Your task to perform on an android device: Go to eBay Image 0: 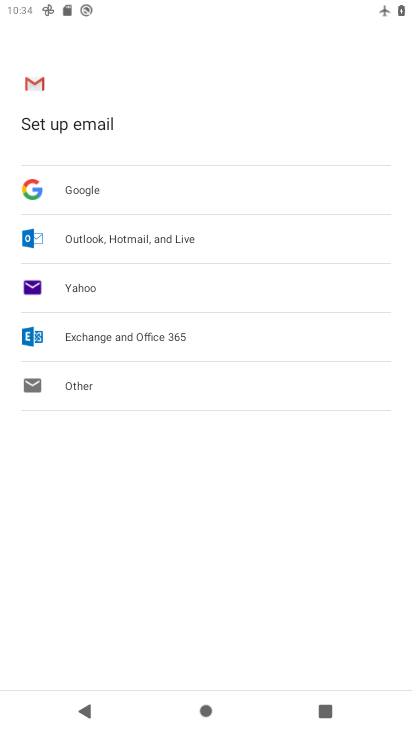
Step 0: drag from (281, 631) to (150, 17)
Your task to perform on an android device: Go to eBay Image 1: 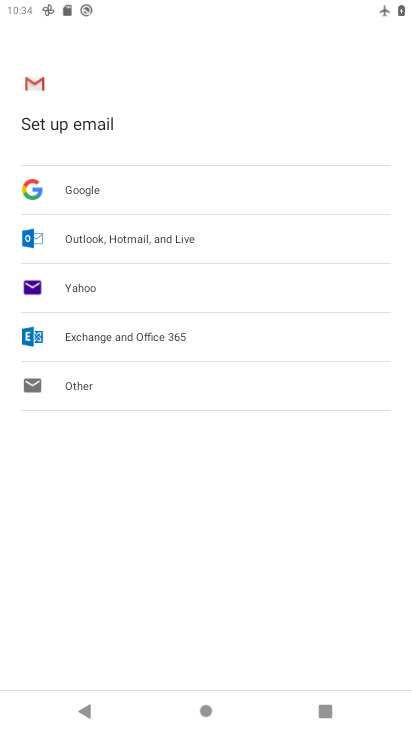
Step 1: press back button
Your task to perform on an android device: Go to eBay Image 2: 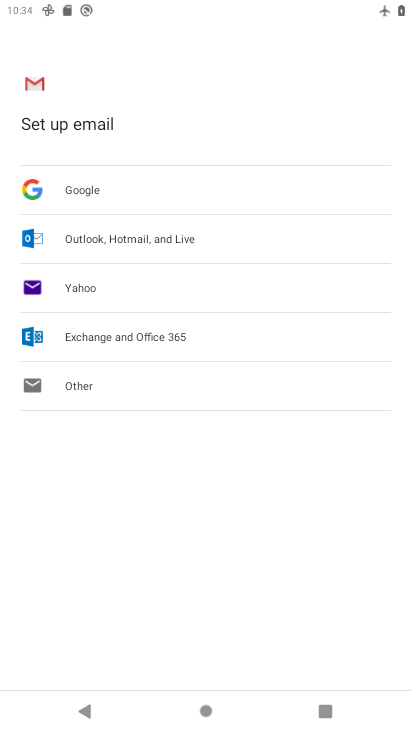
Step 2: press back button
Your task to perform on an android device: Go to eBay Image 3: 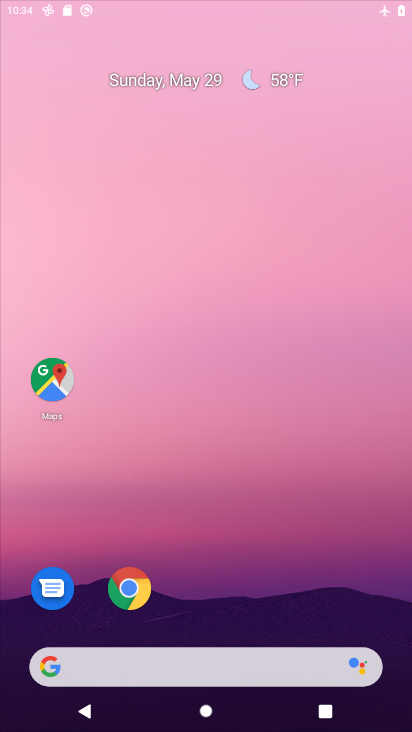
Step 3: press back button
Your task to perform on an android device: Go to eBay Image 4: 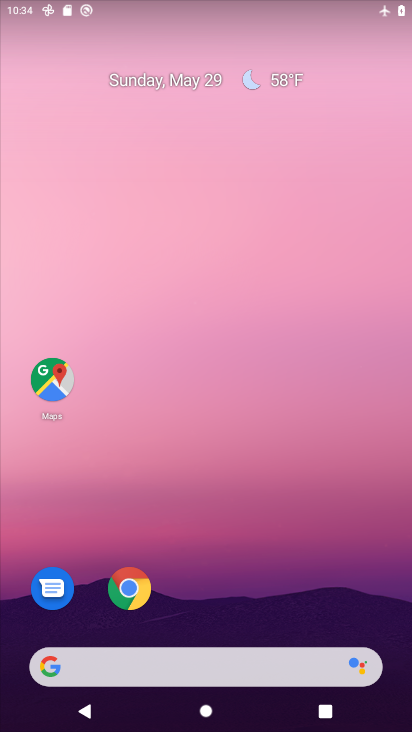
Step 4: drag from (131, 326) to (64, 53)
Your task to perform on an android device: Go to eBay Image 5: 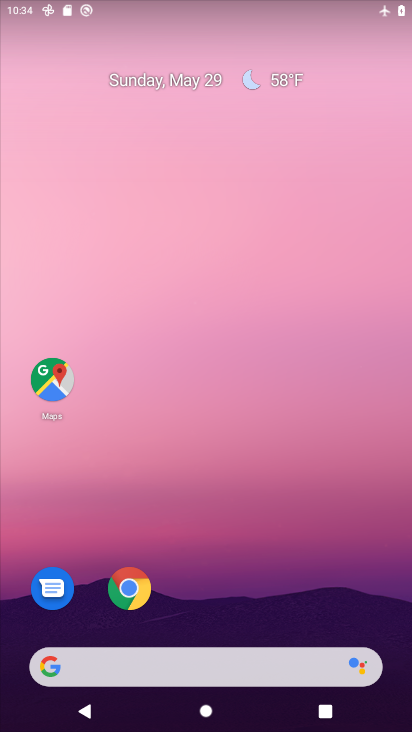
Step 5: drag from (189, 550) to (130, 243)
Your task to perform on an android device: Go to eBay Image 6: 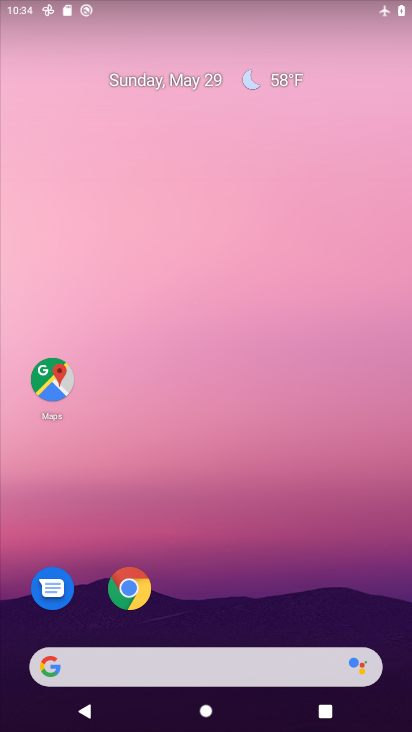
Step 6: drag from (300, 643) to (136, 45)
Your task to perform on an android device: Go to eBay Image 7: 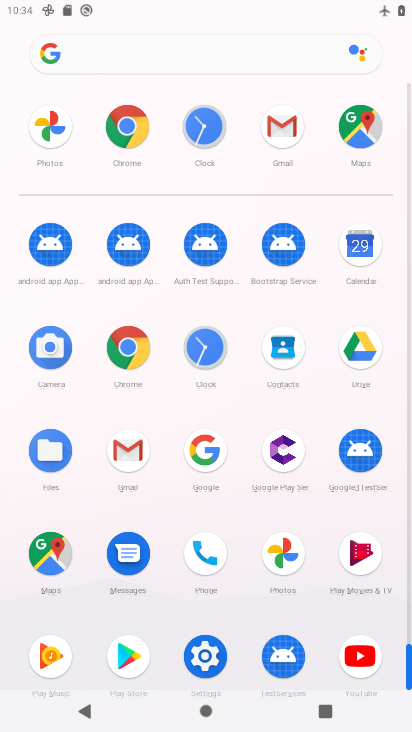
Step 7: drag from (247, 294) to (197, 29)
Your task to perform on an android device: Go to eBay Image 8: 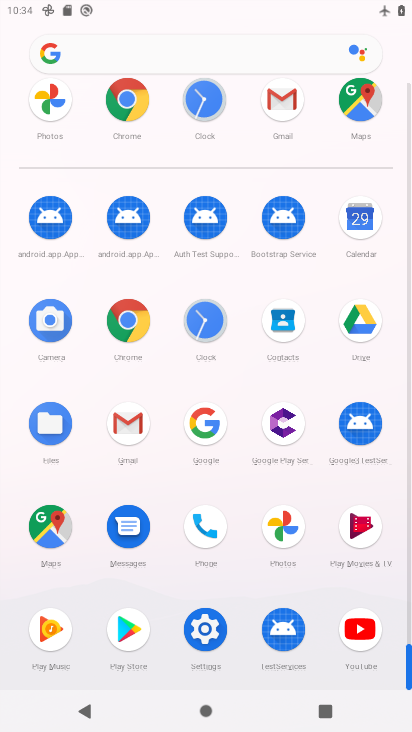
Step 8: click (121, 96)
Your task to perform on an android device: Go to eBay Image 9: 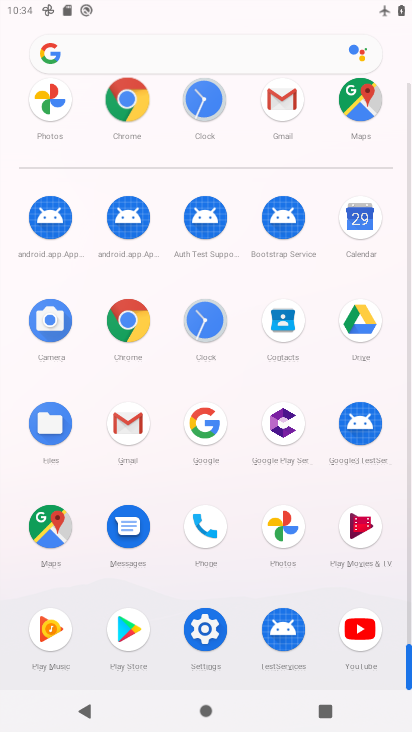
Step 9: click (121, 96)
Your task to perform on an android device: Go to eBay Image 10: 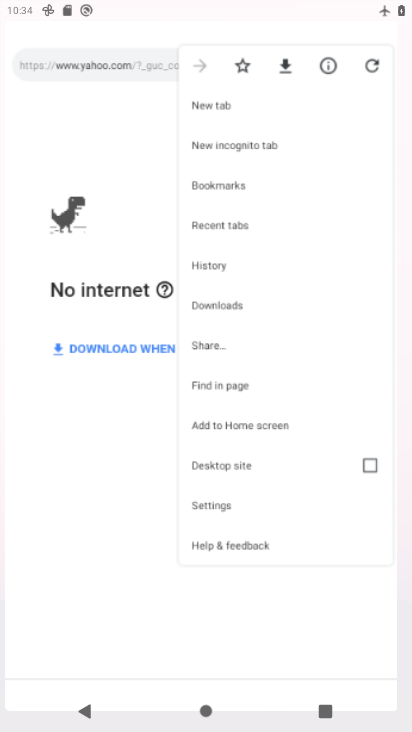
Step 10: click (121, 96)
Your task to perform on an android device: Go to eBay Image 11: 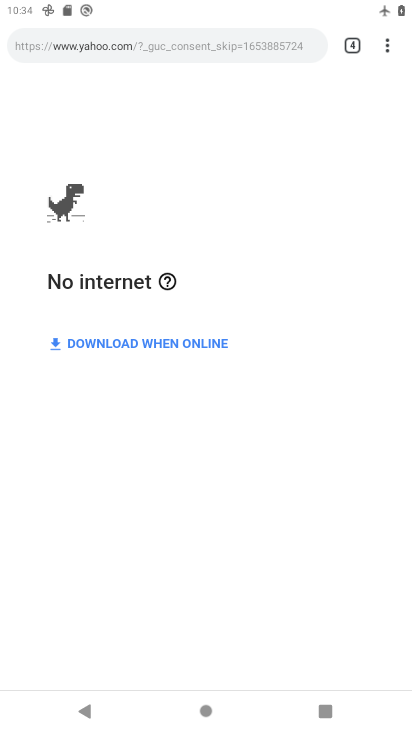
Step 11: task complete